Your task to perform on an android device: delete the emails in spam in the gmail app Image 0: 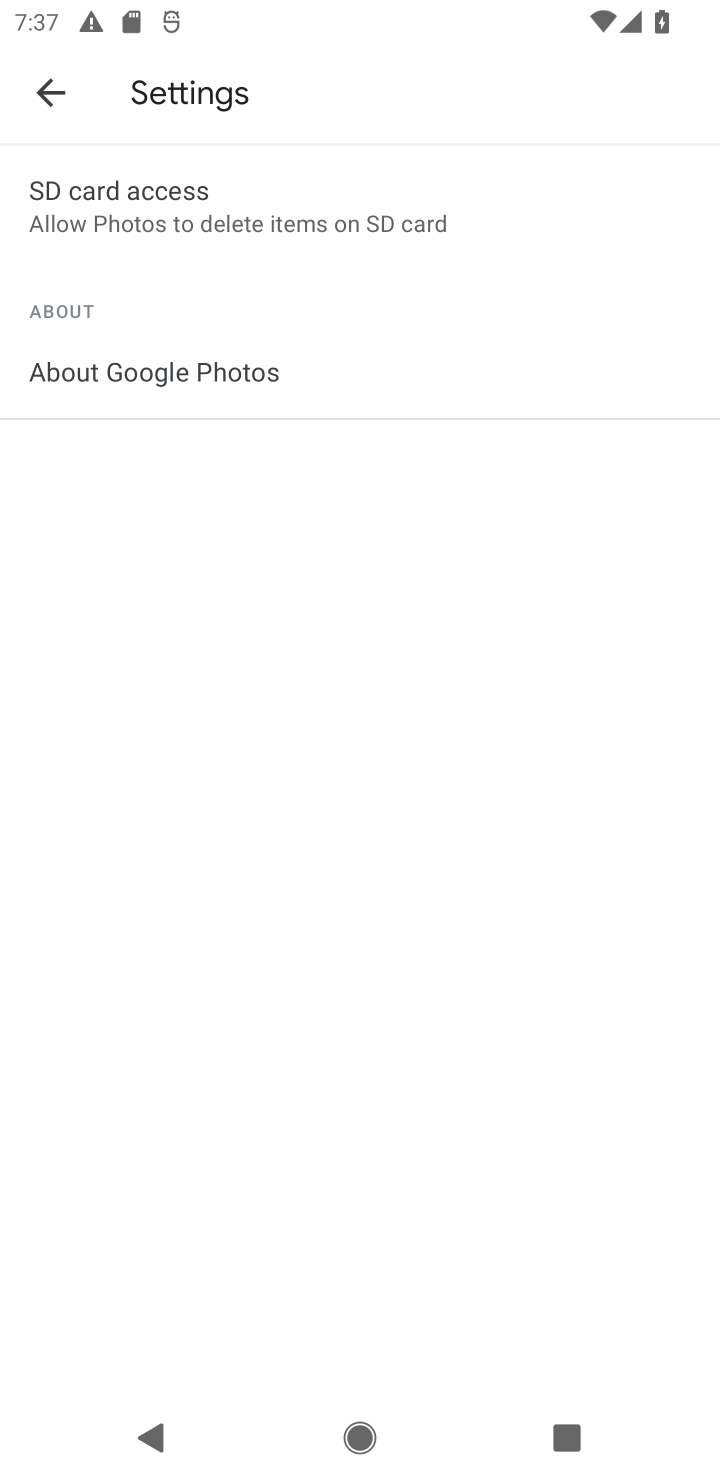
Step 0: press home button
Your task to perform on an android device: delete the emails in spam in the gmail app Image 1: 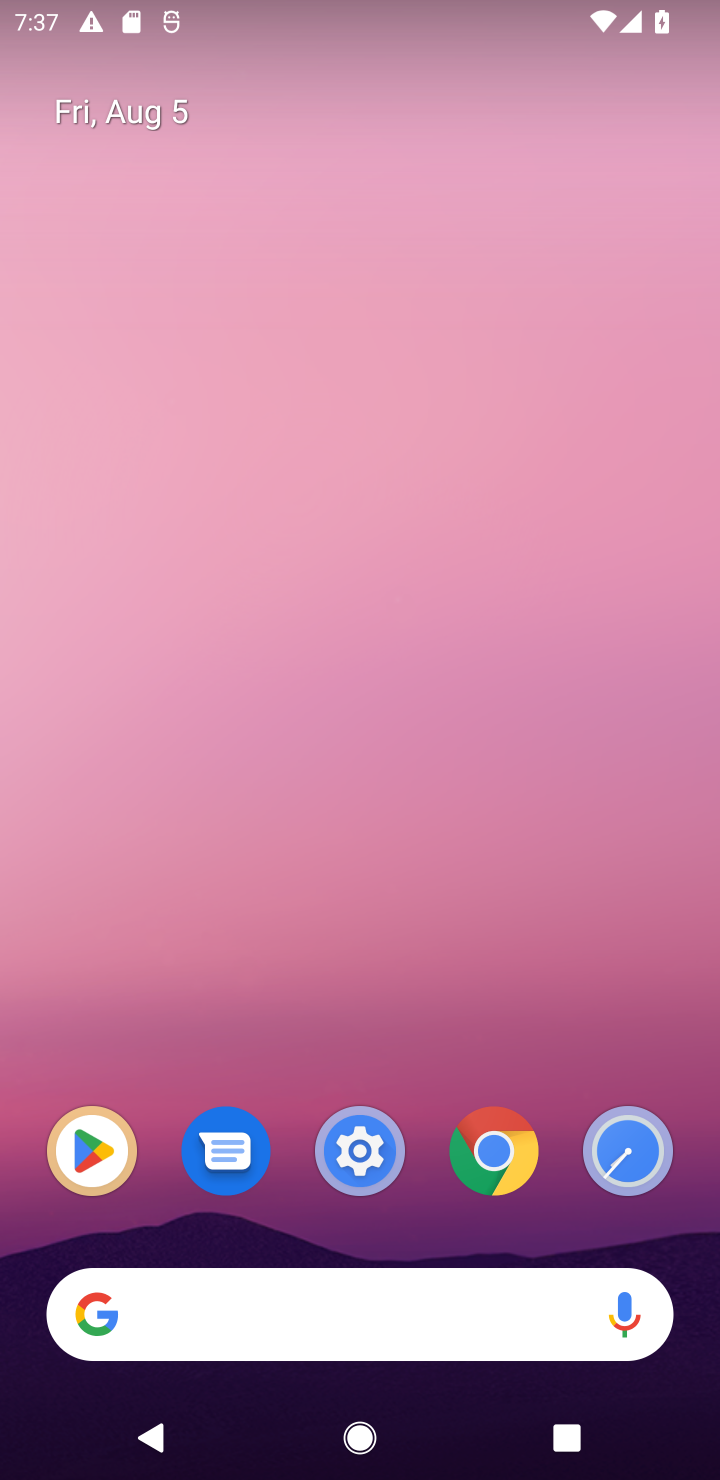
Step 1: drag from (251, 977) to (226, 157)
Your task to perform on an android device: delete the emails in spam in the gmail app Image 2: 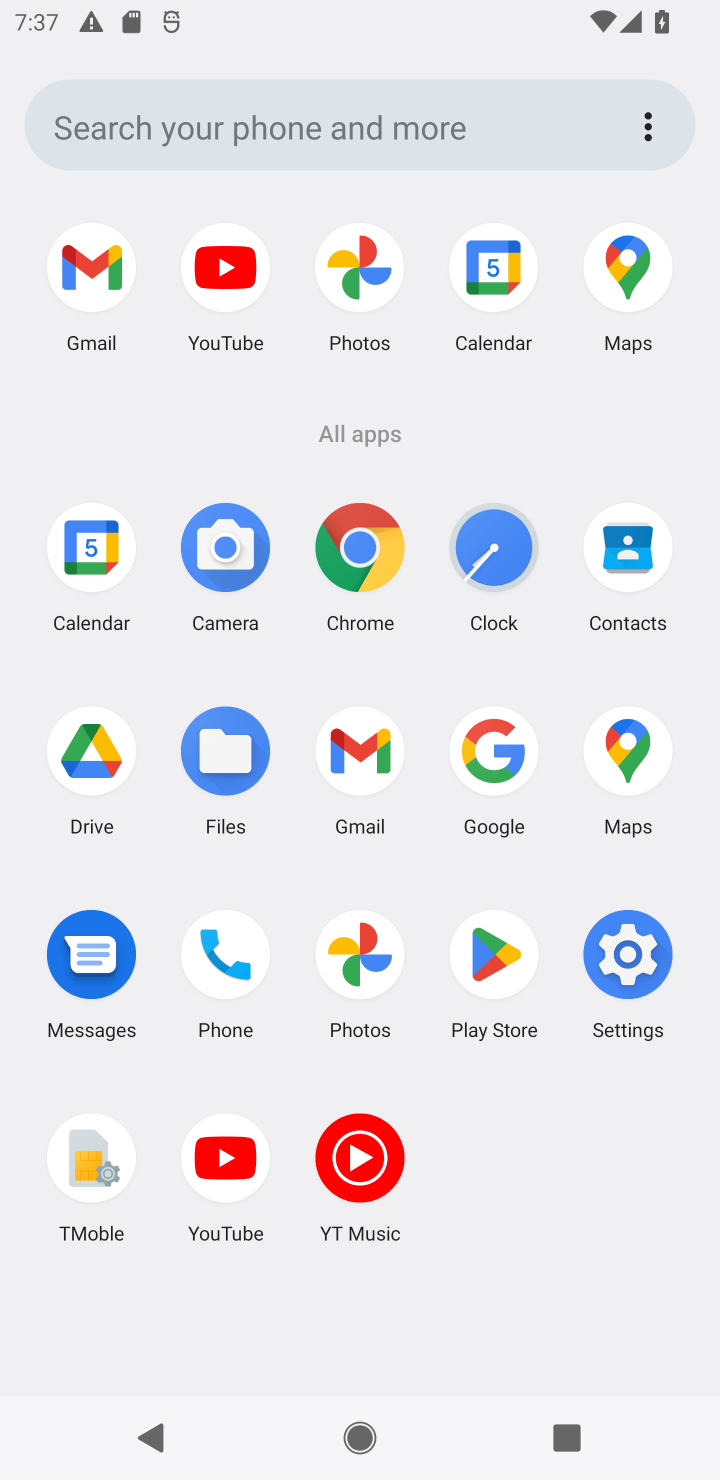
Step 2: click (372, 763)
Your task to perform on an android device: delete the emails in spam in the gmail app Image 3: 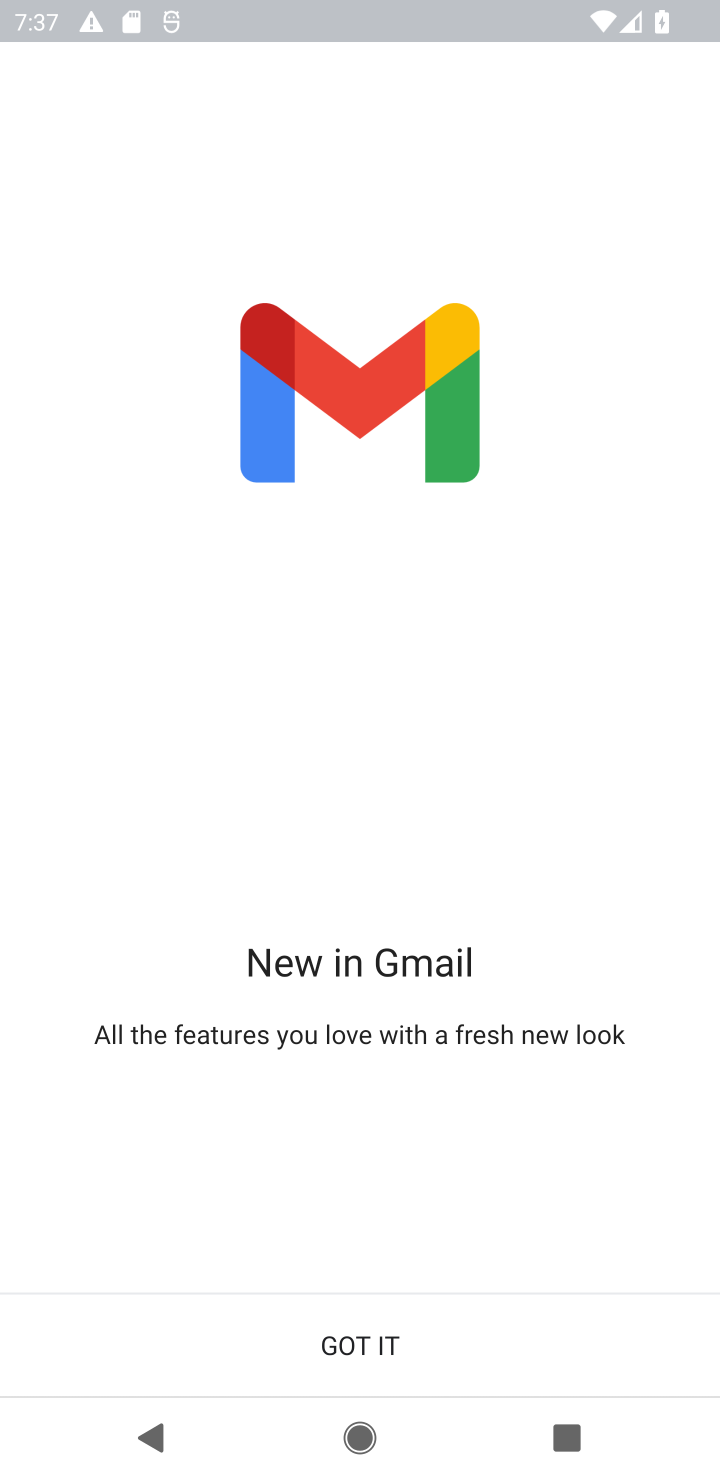
Step 3: click (332, 1354)
Your task to perform on an android device: delete the emails in spam in the gmail app Image 4: 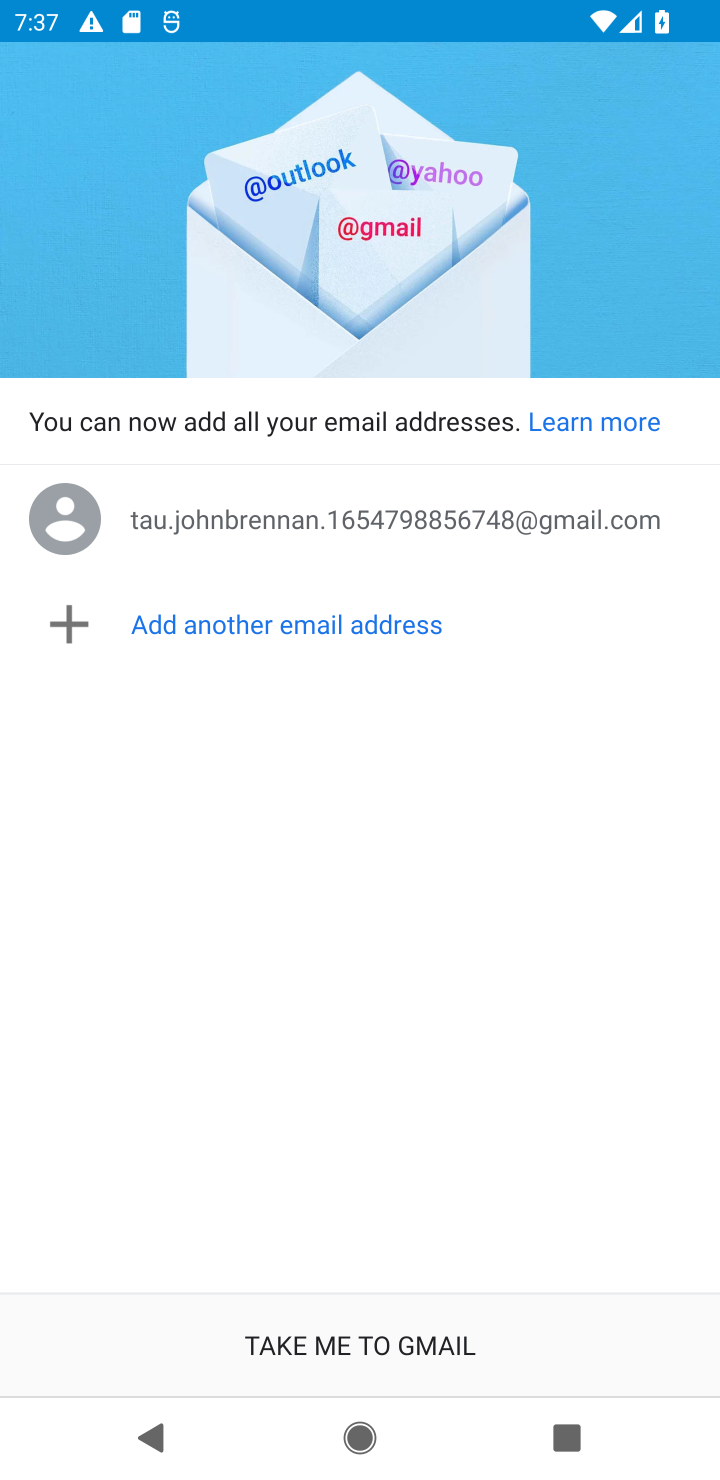
Step 4: click (332, 1354)
Your task to perform on an android device: delete the emails in spam in the gmail app Image 5: 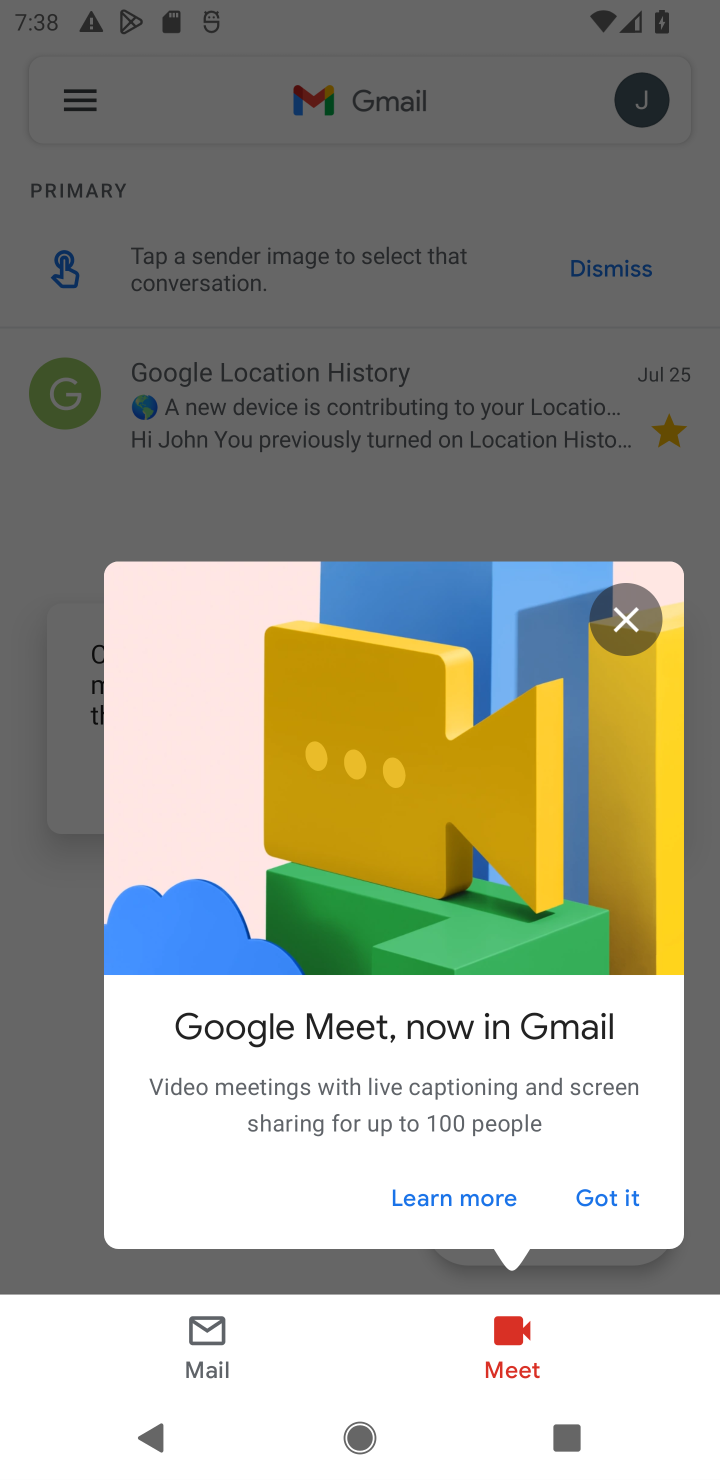
Step 5: click (626, 615)
Your task to perform on an android device: delete the emails in spam in the gmail app Image 6: 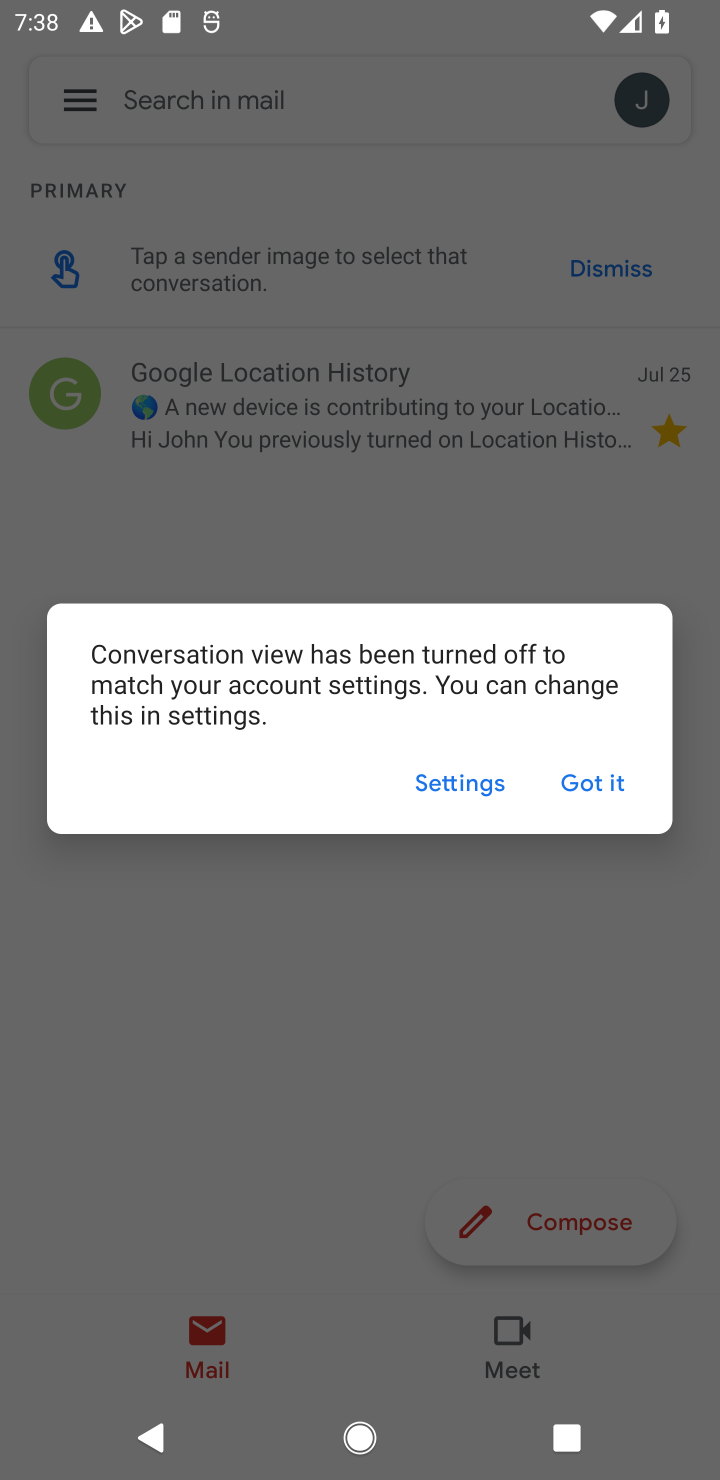
Step 6: click (585, 779)
Your task to perform on an android device: delete the emails in spam in the gmail app Image 7: 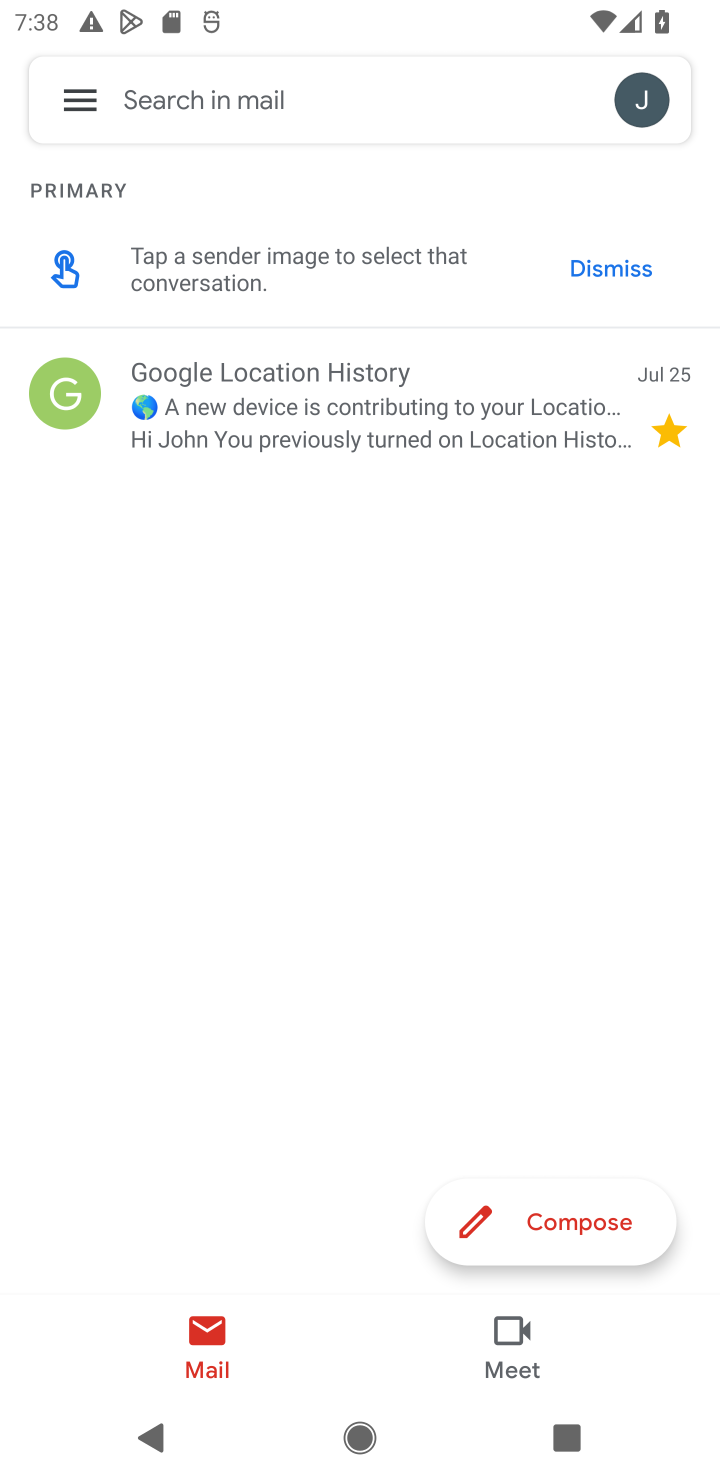
Step 7: click (68, 90)
Your task to perform on an android device: delete the emails in spam in the gmail app Image 8: 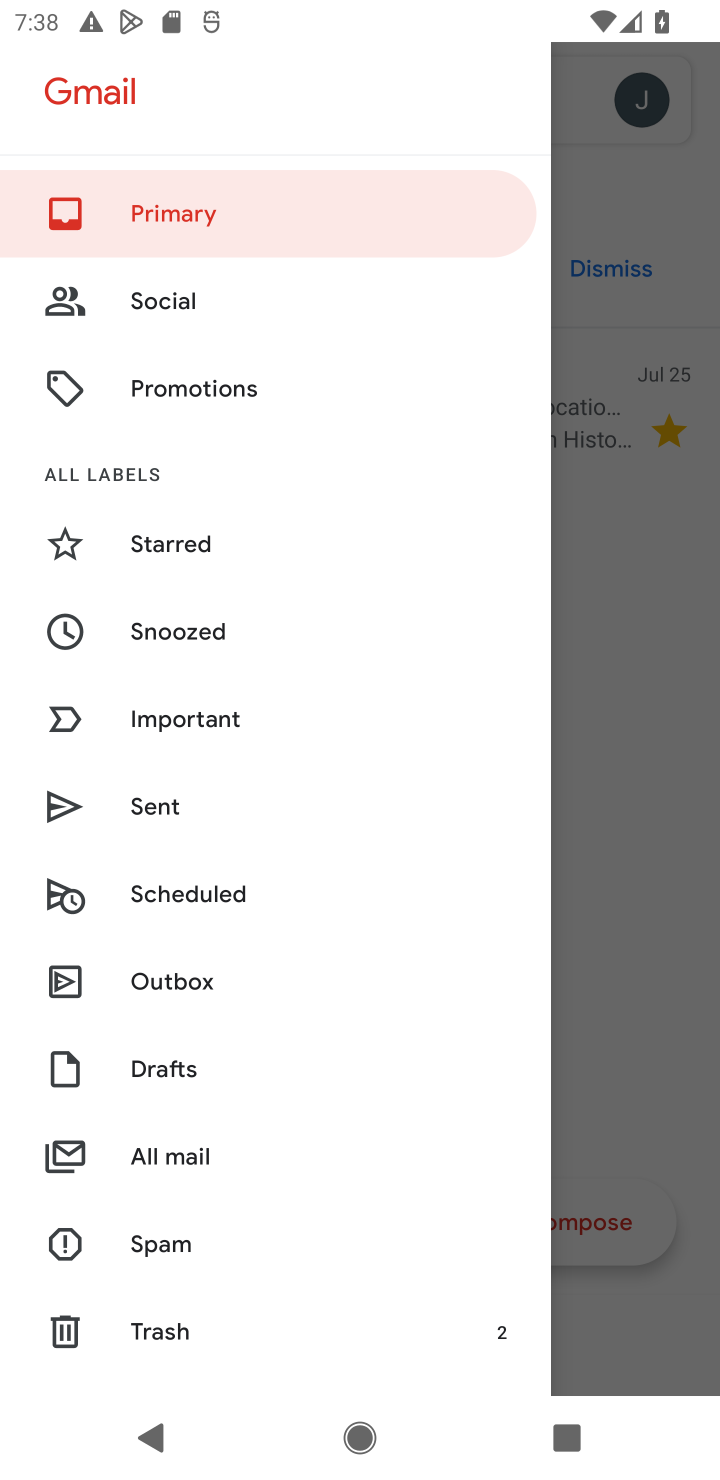
Step 8: click (213, 1256)
Your task to perform on an android device: delete the emails in spam in the gmail app Image 9: 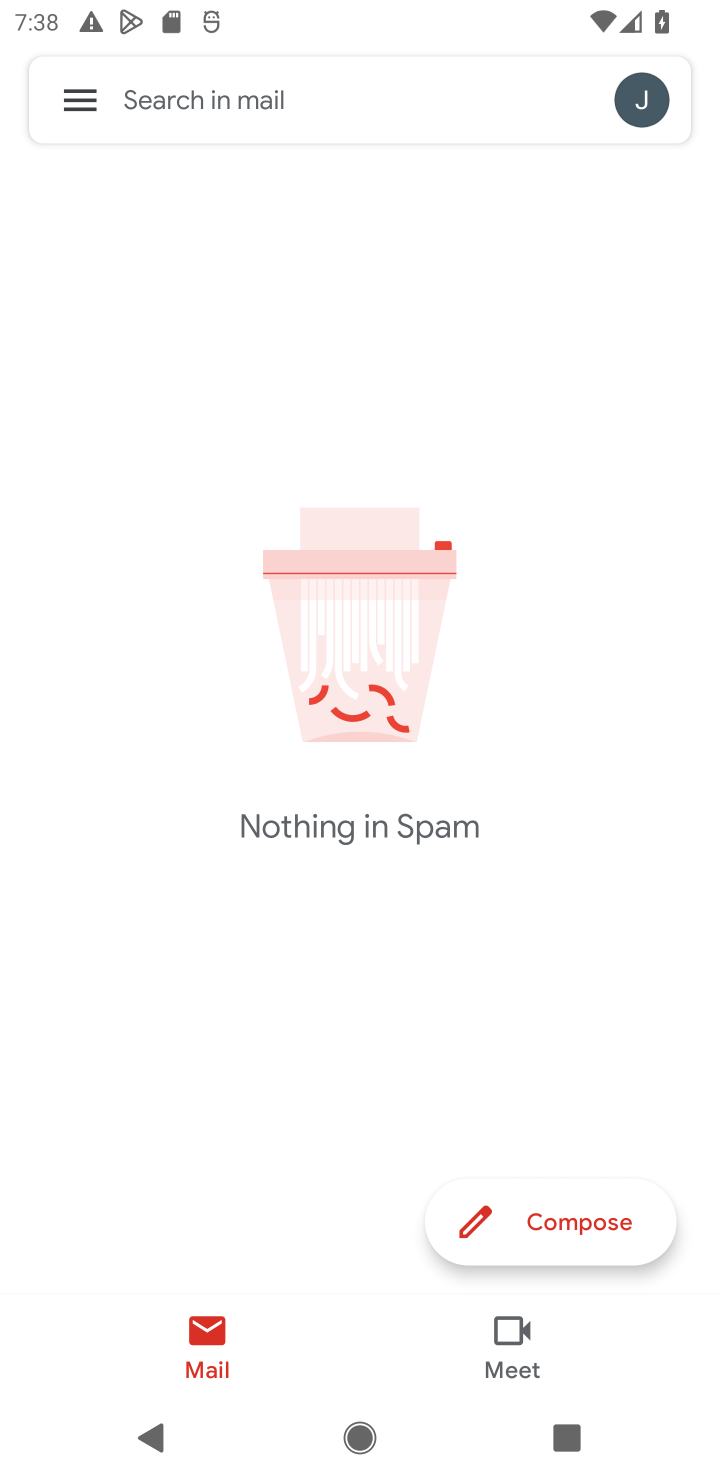
Step 9: task complete